Your task to perform on an android device: Search for seafood restaurants on Google Maps Image 0: 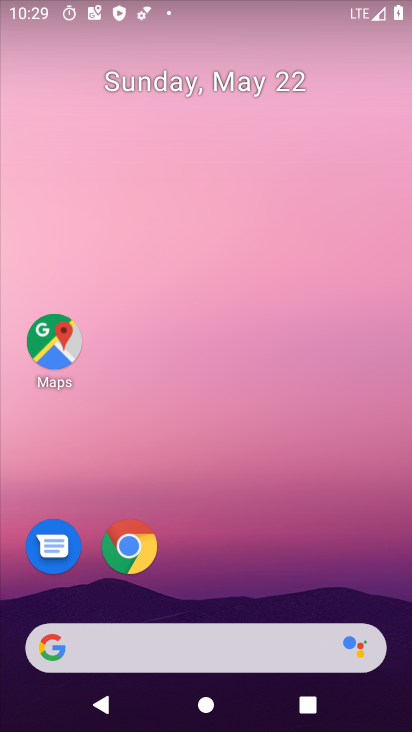
Step 0: click (302, 59)
Your task to perform on an android device: Search for seafood restaurants on Google Maps Image 1: 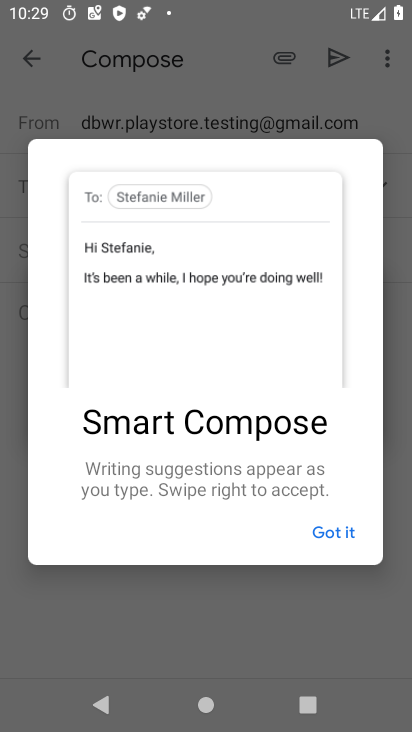
Step 1: press home button
Your task to perform on an android device: Search for seafood restaurants on Google Maps Image 2: 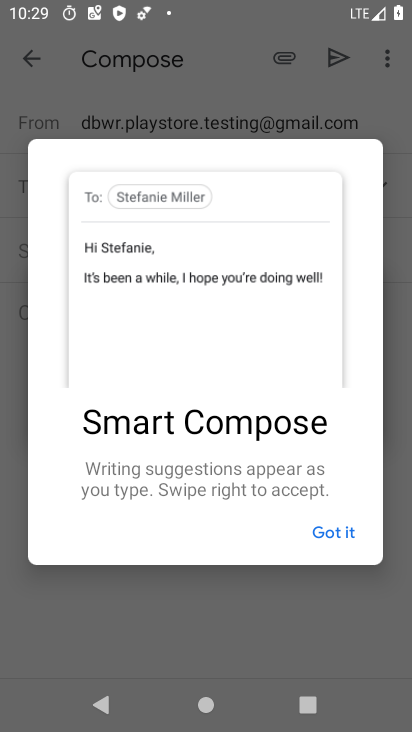
Step 2: press home button
Your task to perform on an android device: Search for seafood restaurants on Google Maps Image 3: 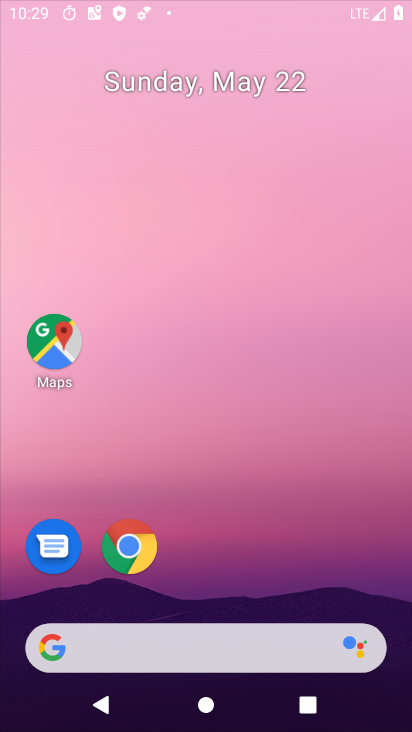
Step 3: drag from (168, 638) to (256, 110)
Your task to perform on an android device: Search for seafood restaurants on Google Maps Image 4: 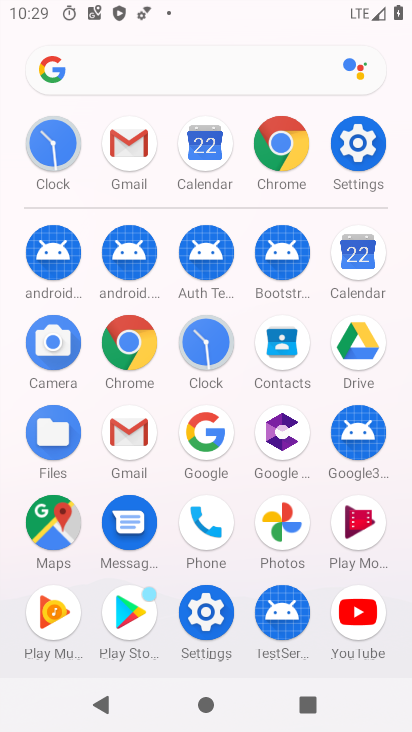
Step 4: click (36, 533)
Your task to perform on an android device: Search for seafood restaurants on Google Maps Image 5: 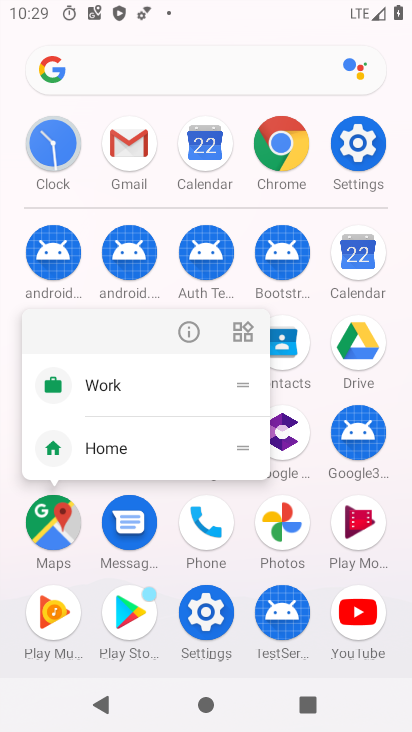
Step 5: click (195, 336)
Your task to perform on an android device: Search for seafood restaurants on Google Maps Image 6: 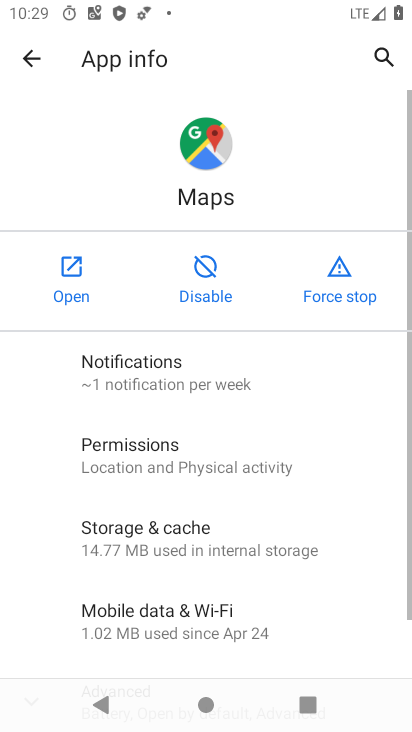
Step 6: click (99, 256)
Your task to perform on an android device: Search for seafood restaurants on Google Maps Image 7: 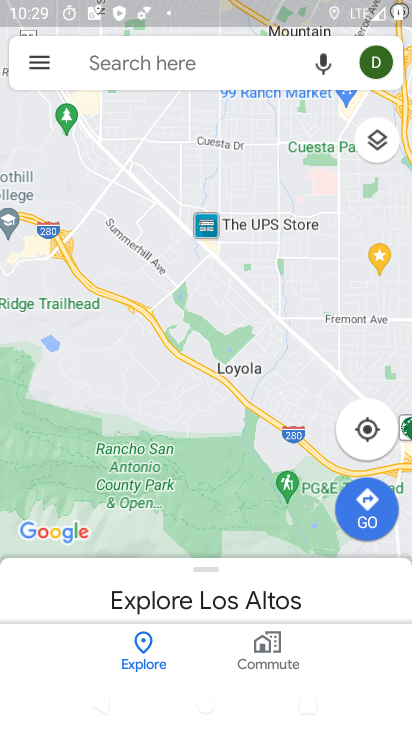
Step 7: click (29, 83)
Your task to perform on an android device: Search for seafood restaurants on Google Maps Image 8: 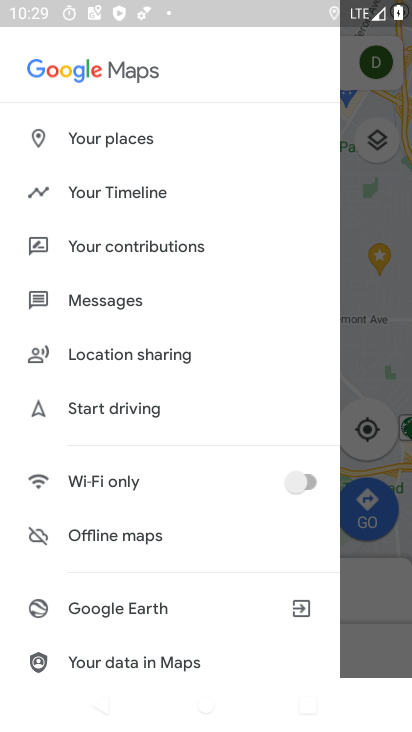
Step 8: click (386, 185)
Your task to perform on an android device: Search for seafood restaurants on Google Maps Image 9: 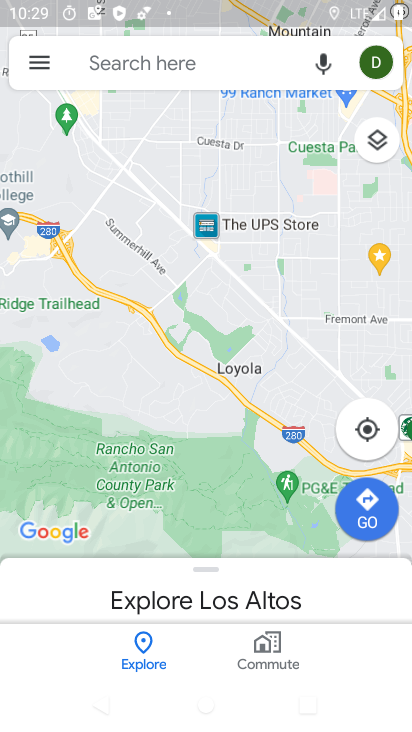
Step 9: click (172, 44)
Your task to perform on an android device: Search for seafood restaurants on Google Maps Image 10: 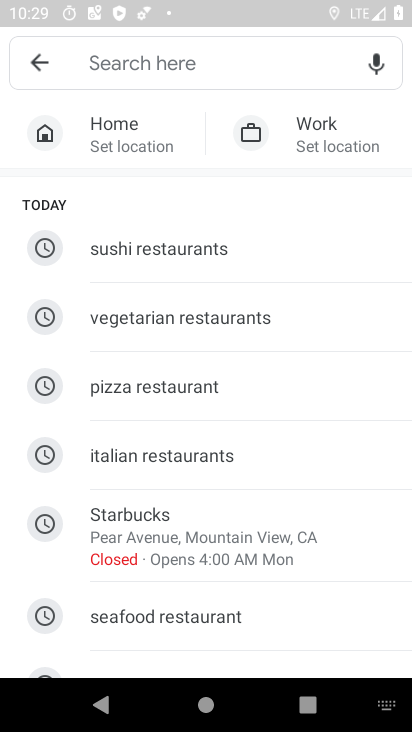
Step 10: click (137, 613)
Your task to perform on an android device: Search for seafood restaurants on Google Maps Image 11: 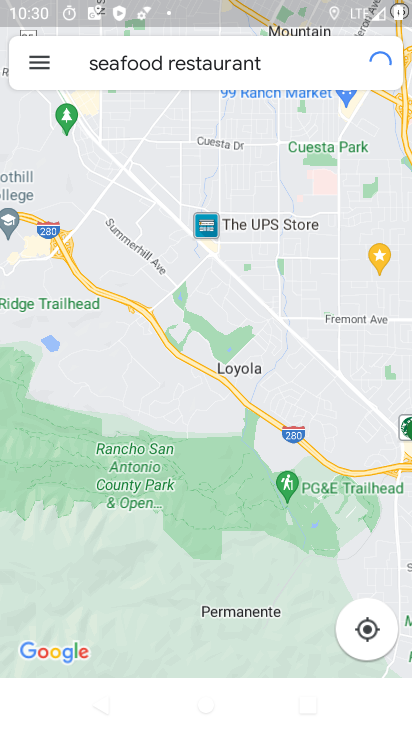
Step 11: task complete